Your task to perform on an android device: Search for sushi restaurants on Maps Image 0: 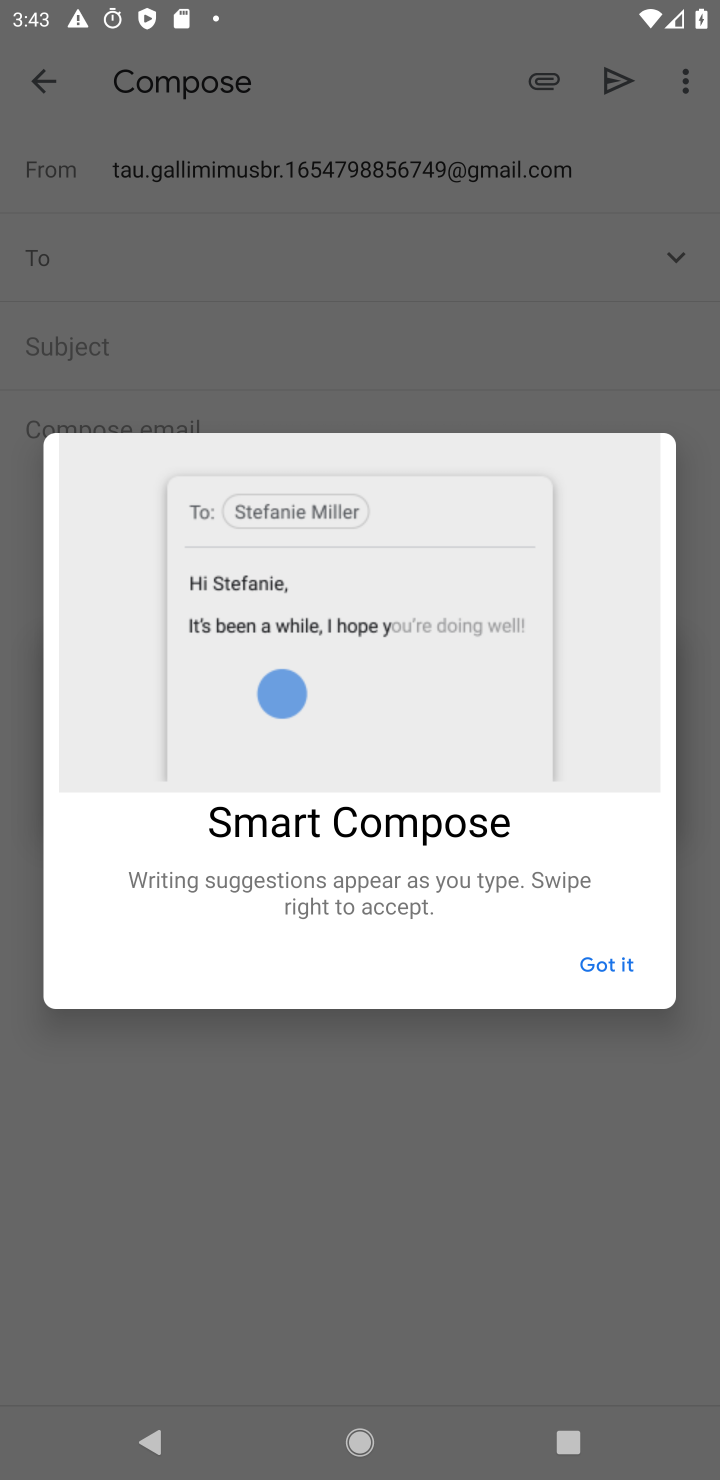
Step 0: press home button
Your task to perform on an android device: Search for sushi restaurants on Maps Image 1: 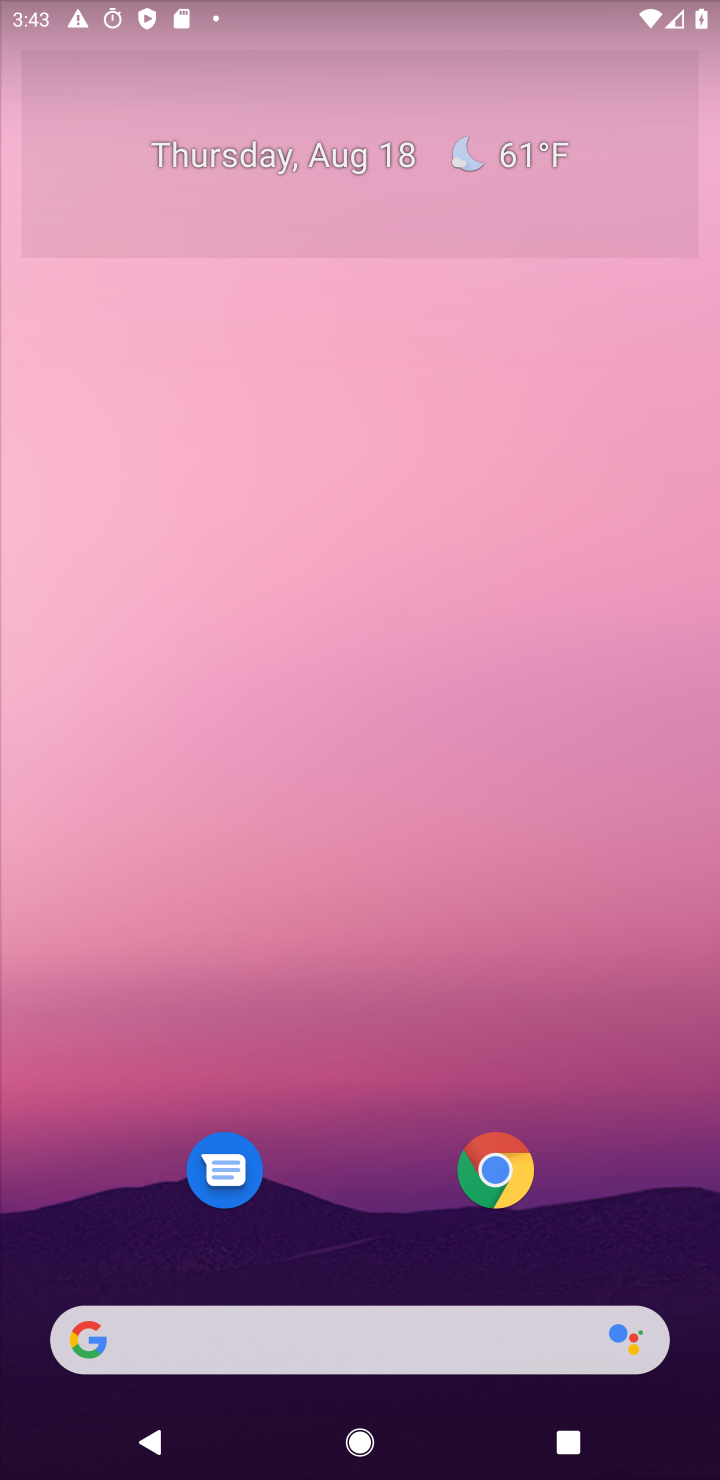
Step 1: drag from (0, 1415) to (455, 127)
Your task to perform on an android device: Search for sushi restaurants on Maps Image 2: 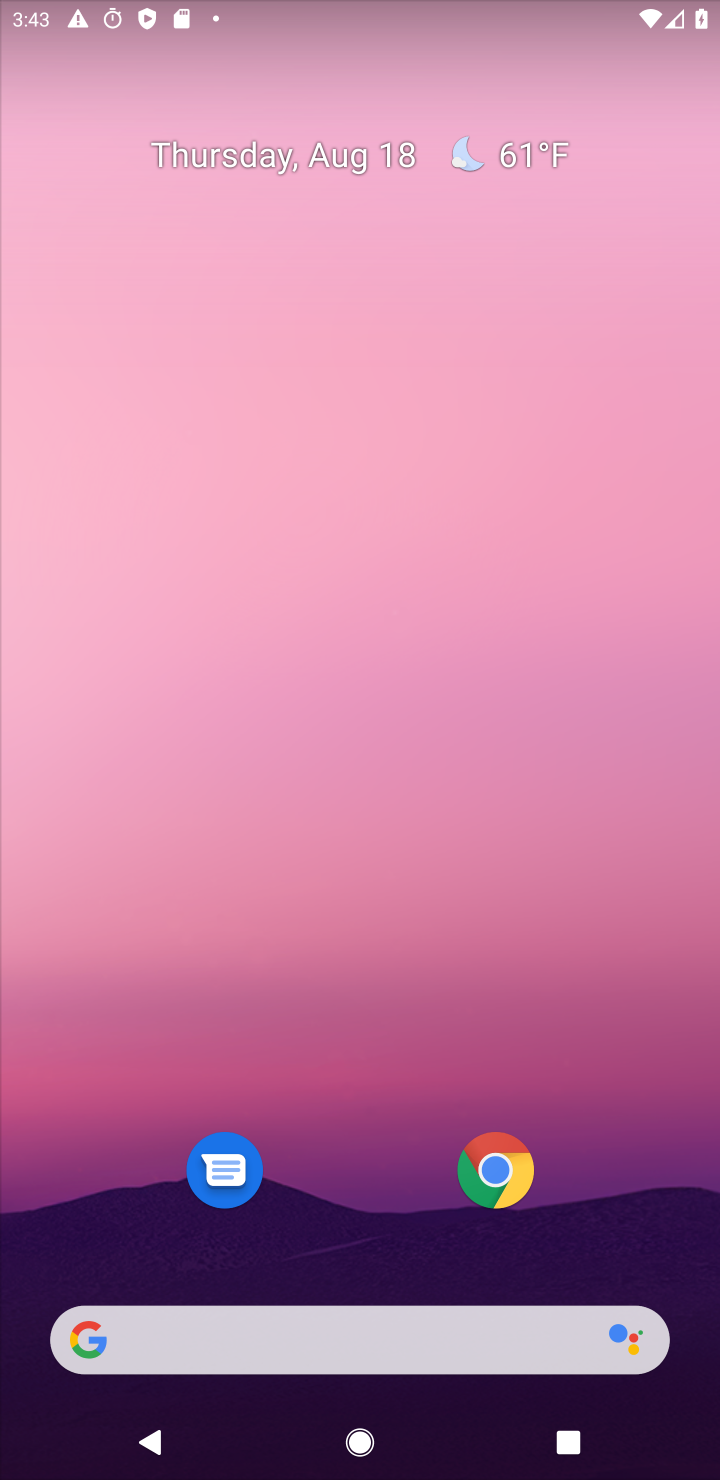
Step 2: drag from (130, 1275) to (320, 603)
Your task to perform on an android device: Search for sushi restaurants on Maps Image 3: 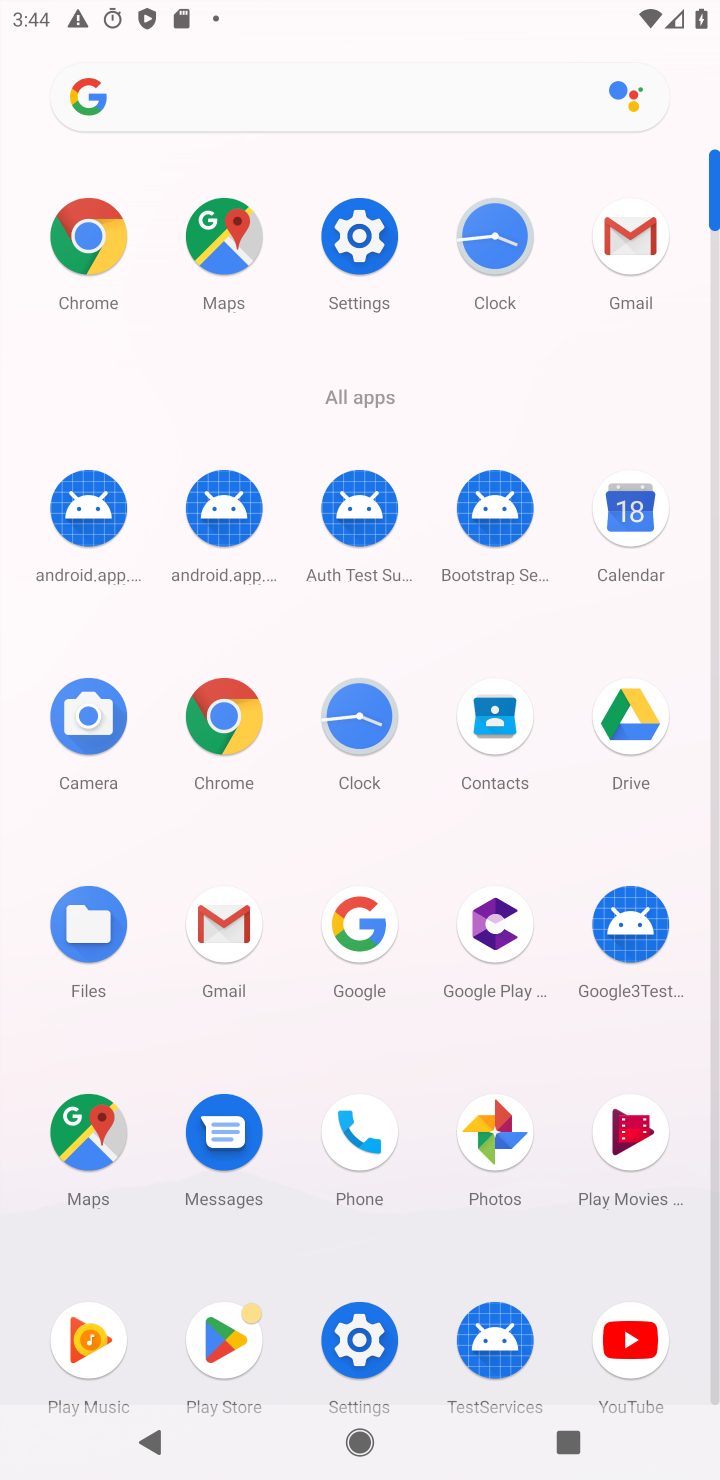
Step 3: click (84, 1156)
Your task to perform on an android device: Search for sushi restaurants on Maps Image 4: 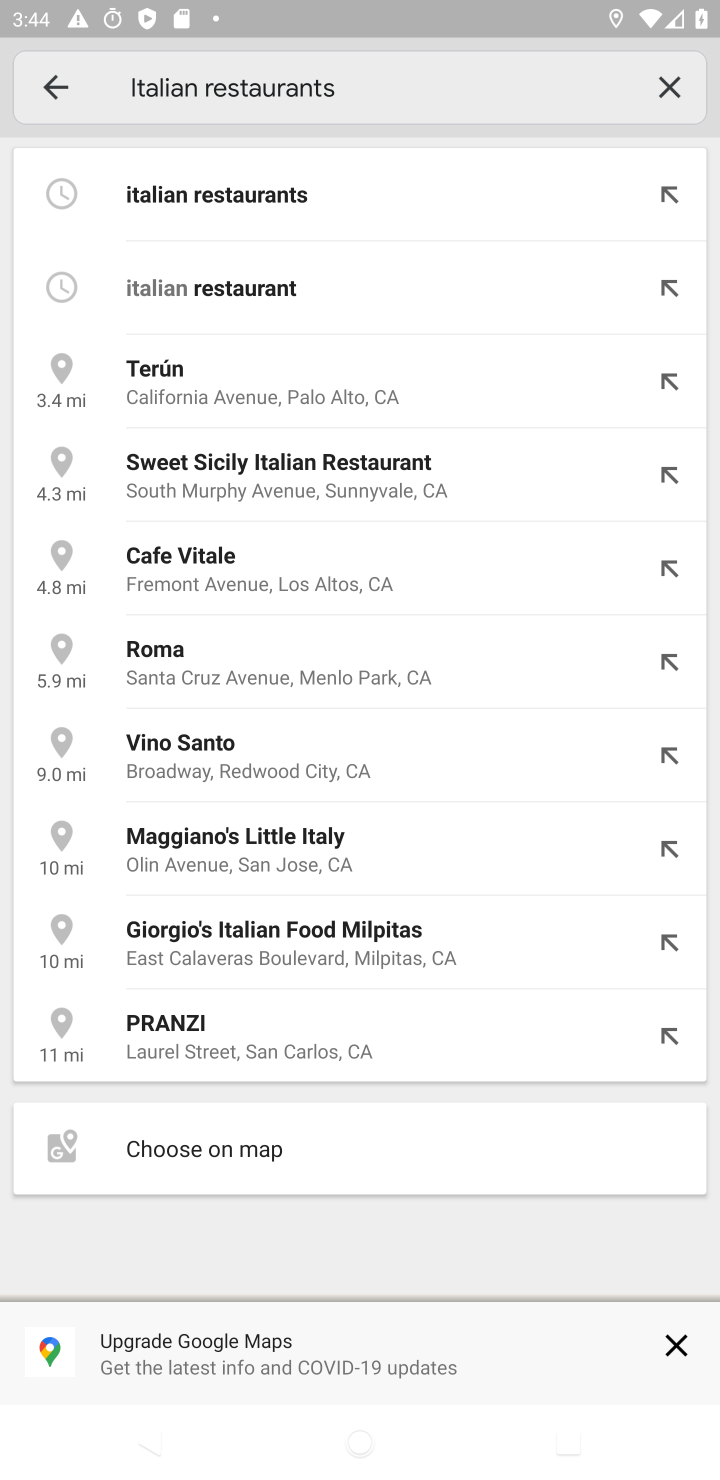
Step 4: click (61, 95)
Your task to perform on an android device: Search for sushi restaurants on Maps Image 5: 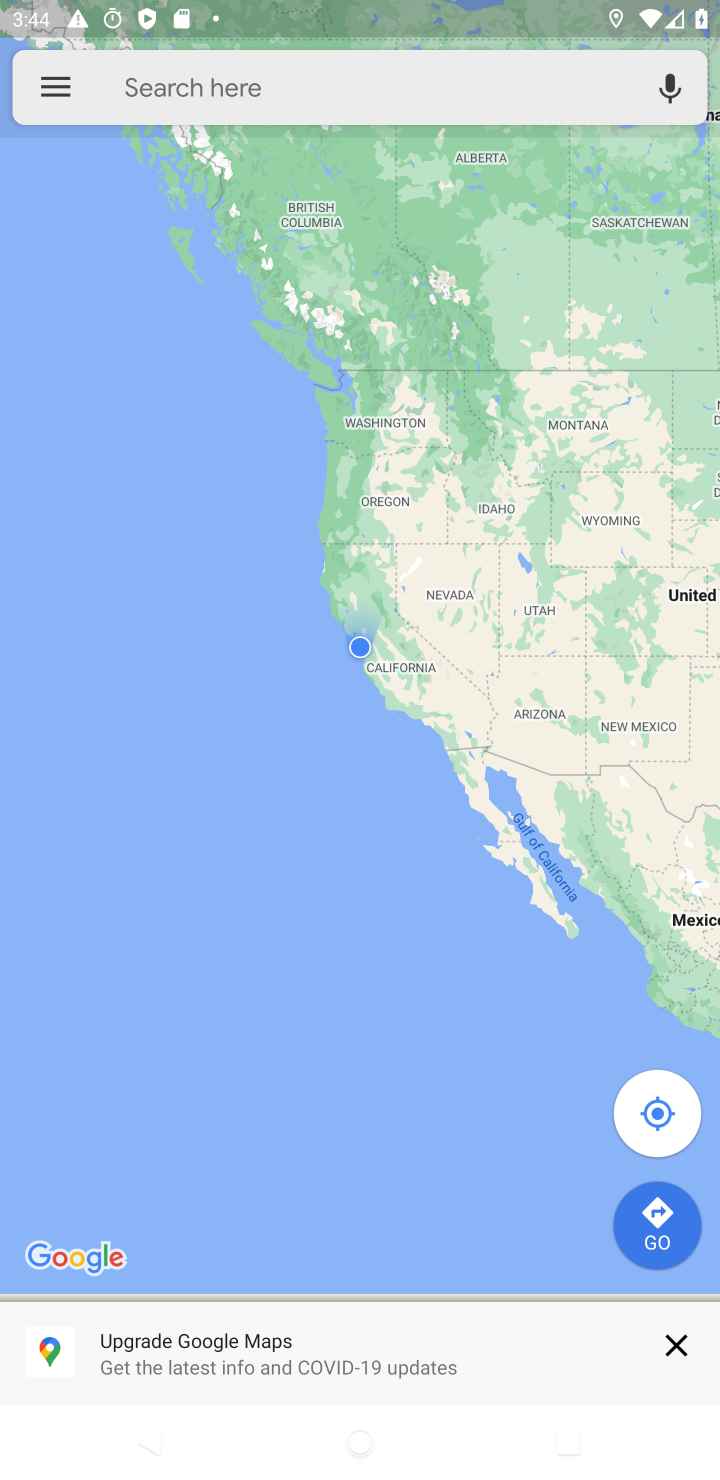
Step 5: click (196, 76)
Your task to perform on an android device: Search for sushi restaurants on Maps Image 6: 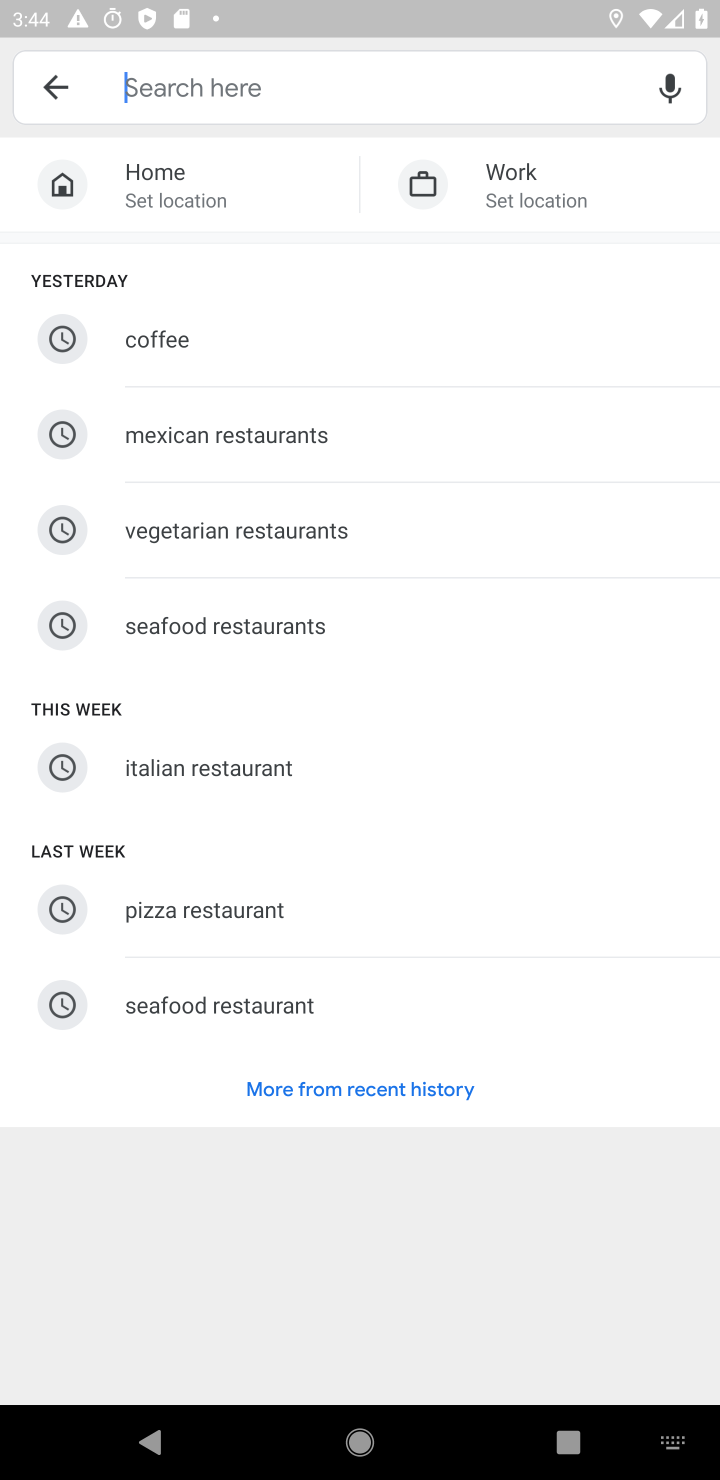
Step 6: type "sushi restaurants"
Your task to perform on an android device: Search for sushi restaurants on Maps Image 7: 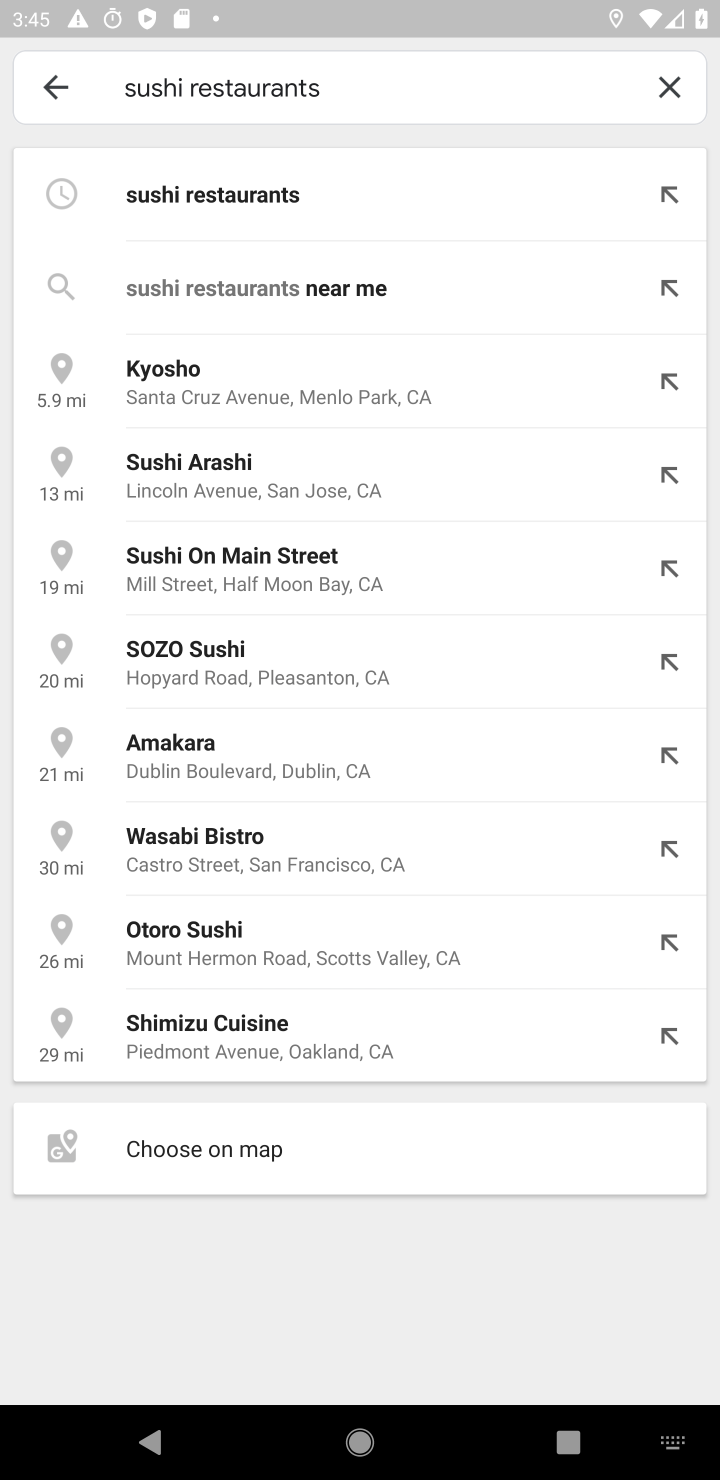
Step 7: click (271, 213)
Your task to perform on an android device: Search for sushi restaurants on Maps Image 8: 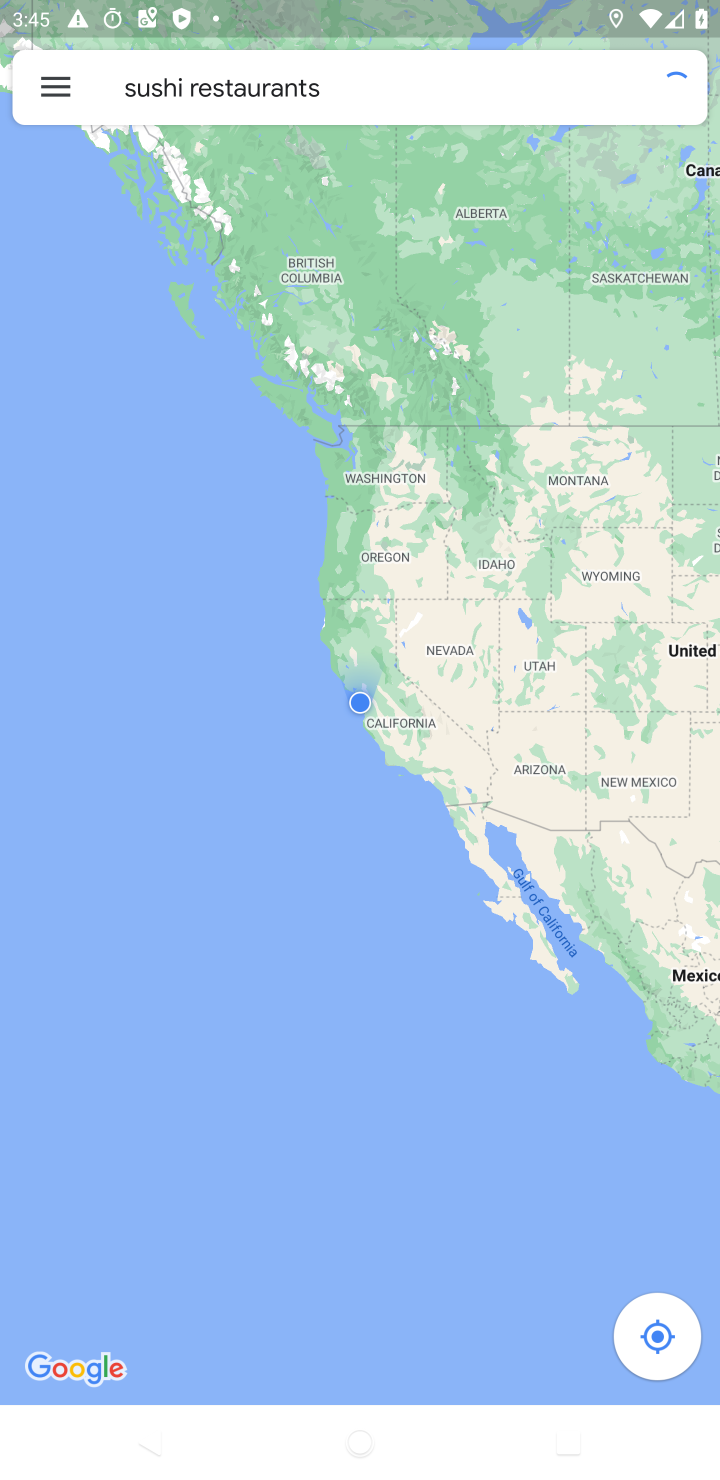
Step 8: task complete